Your task to perform on an android device: create a new album in the google photos Image 0: 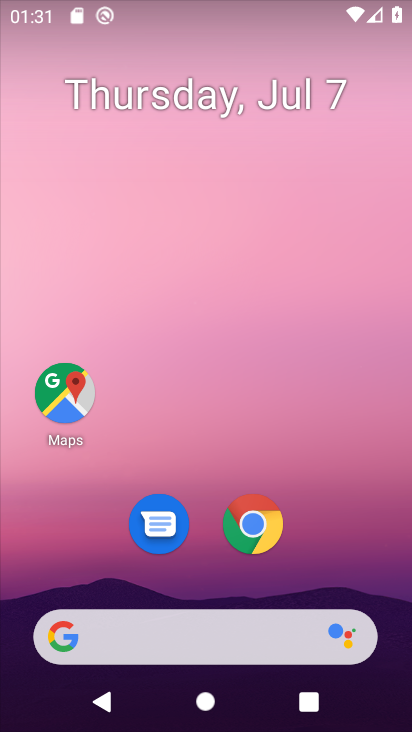
Step 0: drag from (262, 398) to (242, 27)
Your task to perform on an android device: create a new album in the google photos Image 1: 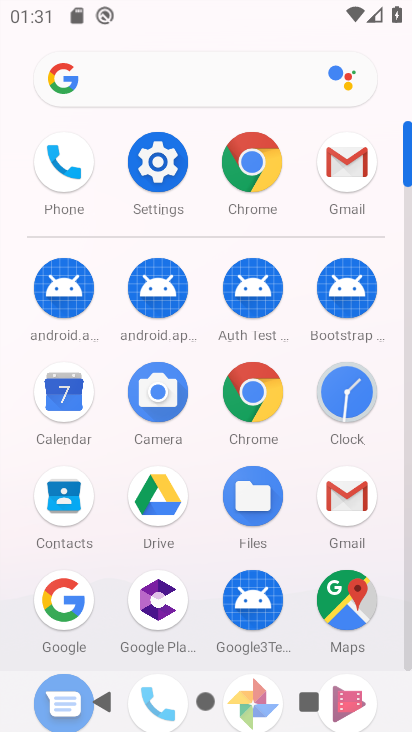
Step 1: drag from (208, 527) to (213, 195)
Your task to perform on an android device: create a new album in the google photos Image 2: 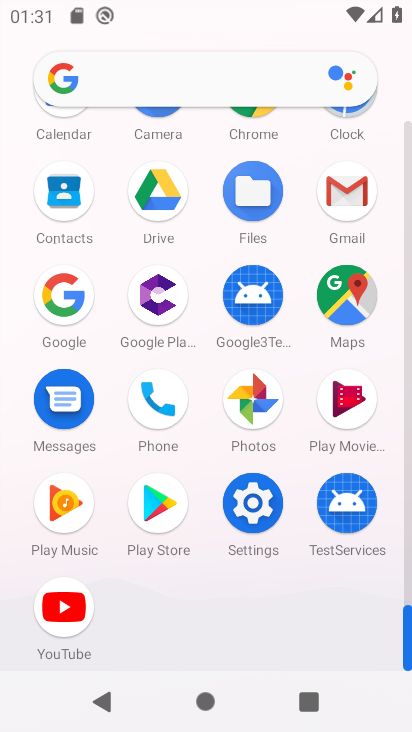
Step 2: click (254, 408)
Your task to perform on an android device: create a new album in the google photos Image 3: 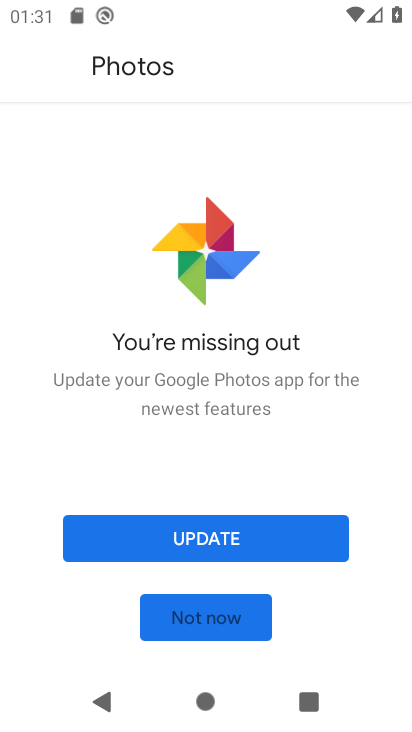
Step 3: click (238, 609)
Your task to perform on an android device: create a new album in the google photos Image 4: 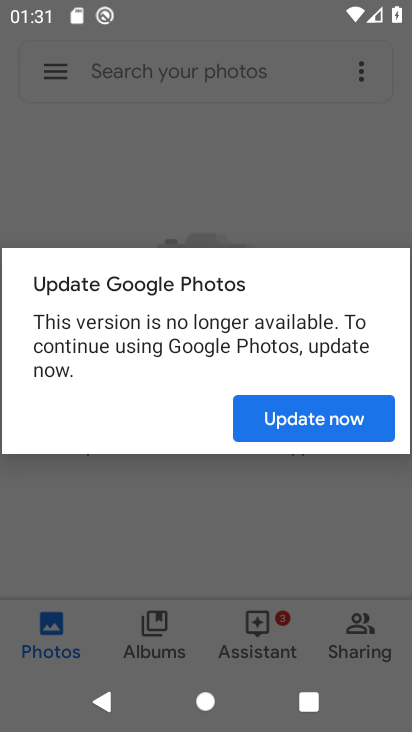
Step 4: click (312, 413)
Your task to perform on an android device: create a new album in the google photos Image 5: 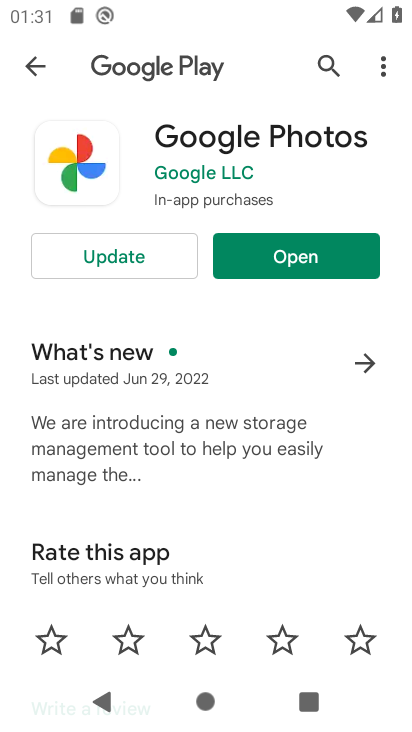
Step 5: click (323, 245)
Your task to perform on an android device: create a new album in the google photos Image 6: 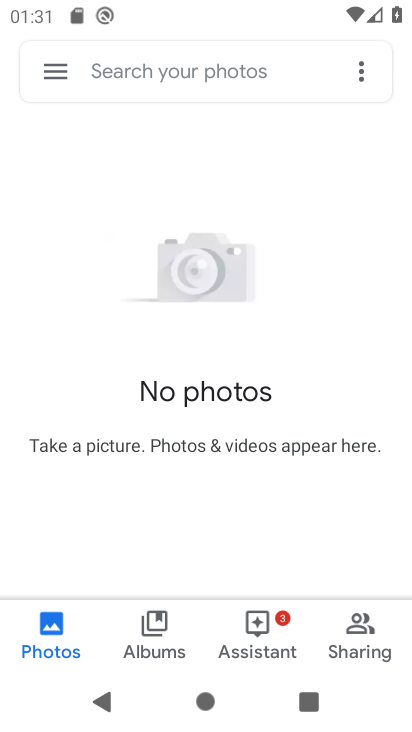
Step 6: click (148, 626)
Your task to perform on an android device: create a new album in the google photos Image 7: 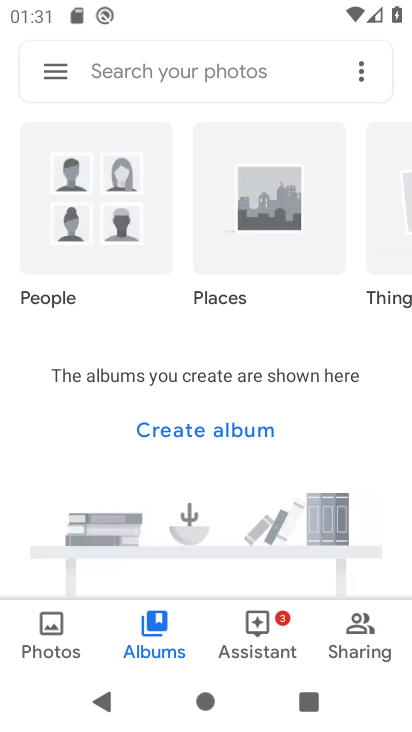
Step 7: click (217, 506)
Your task to perform on an android device: create a new album in the google photos Image 8: 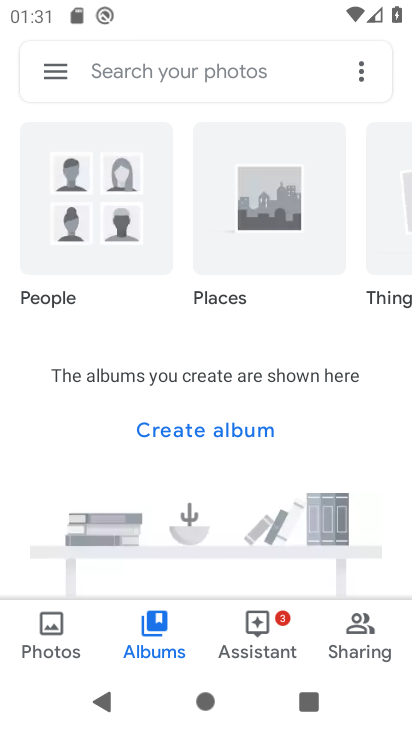
Step 8: click (235, 421)
Your task to perform on an android device: create a new album in the google photos Image 9: 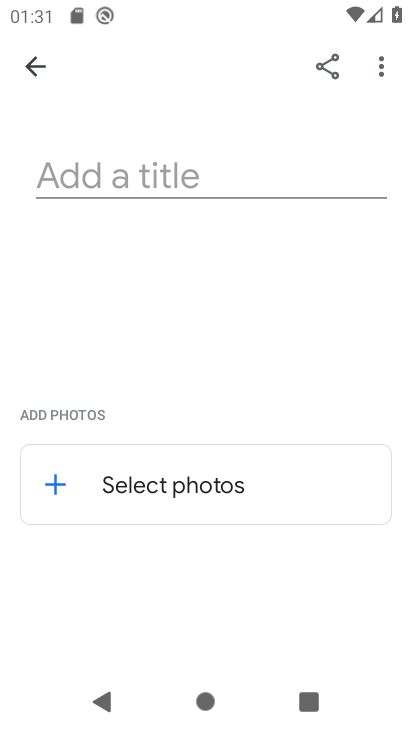
Step 9: click (178, 175)
Your task to perform on an android device: create a new album in the google photos Image 10: 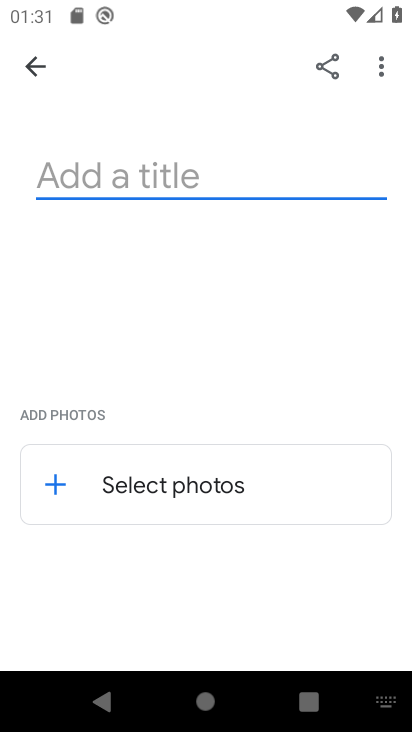
Step 10: type "Ayodhya"
Your task to perform on an android device: create a new album in the google photos Image 11: 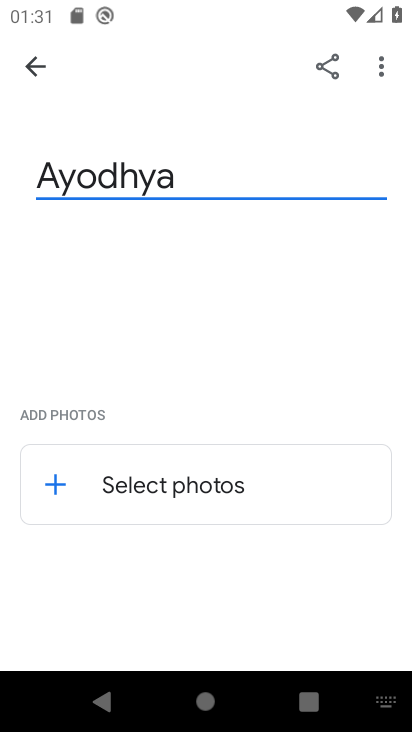
Step 11: click (50, 469)
Your task to perform on an android device: create a new album in the google photos Image 12: 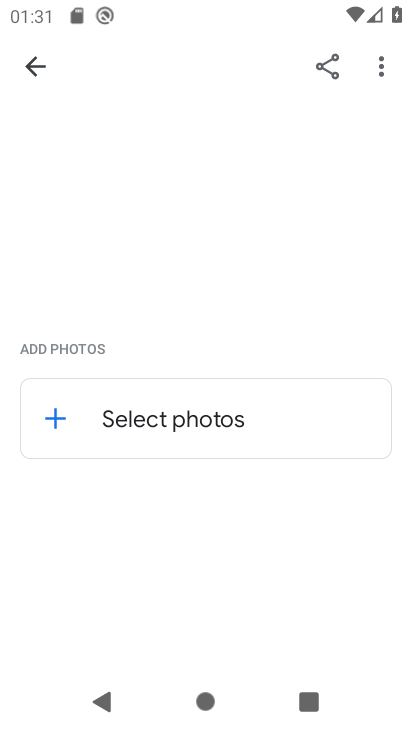
Step 12: click (60, 413)
Your task to perform on an android device: create a new album in the google photos Image 13: 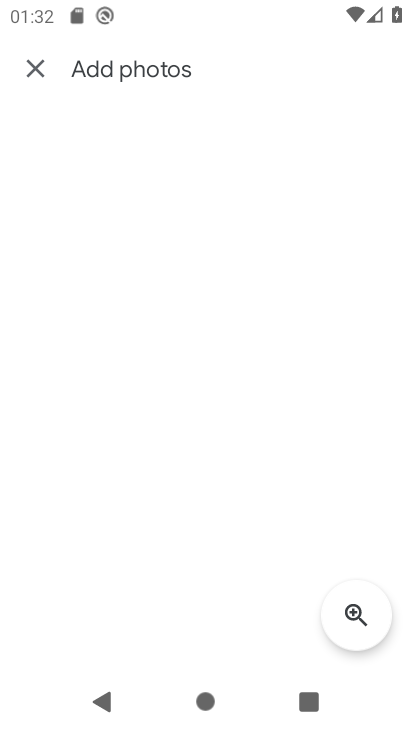
Step 13: task complete